Your task to perform on an android device: Go to notification settings Image 0: 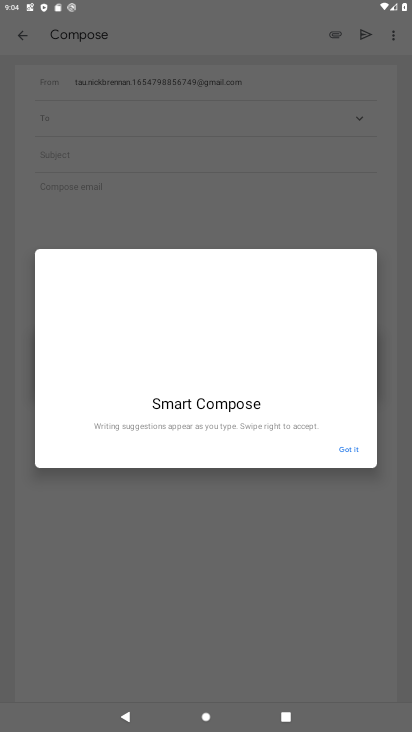
Step 0: press home button
Your task to perform on an android device: Go to notification settings Image 1: 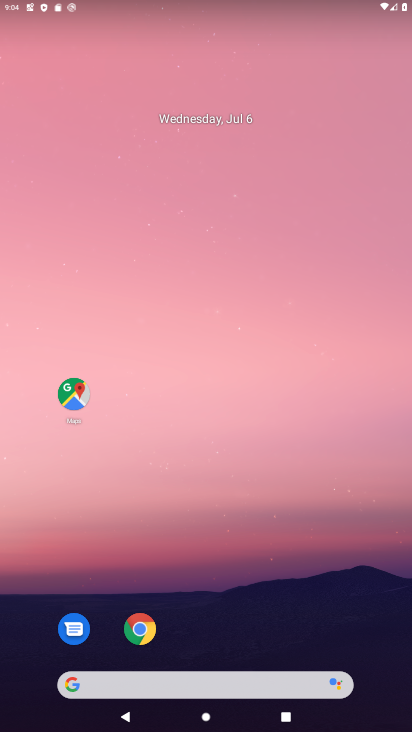
Step 1: drag from (248, 659) to (274, 5)
Your task to perform on an android device: Go to notification settings Image 2: 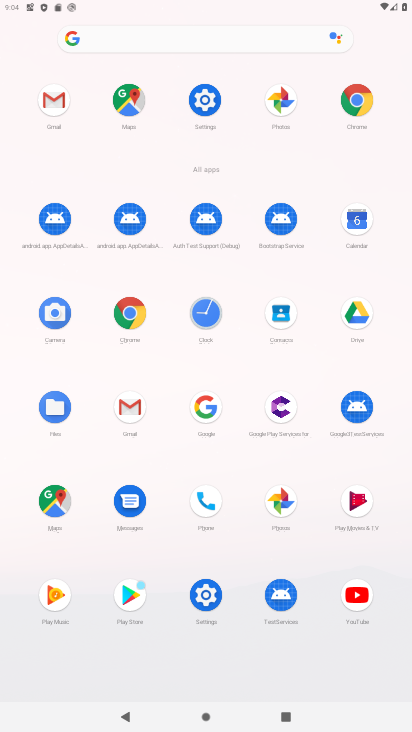
Step 2: click (201, 106)
Your task to perform on an android device: Go to notification settings Image 3: 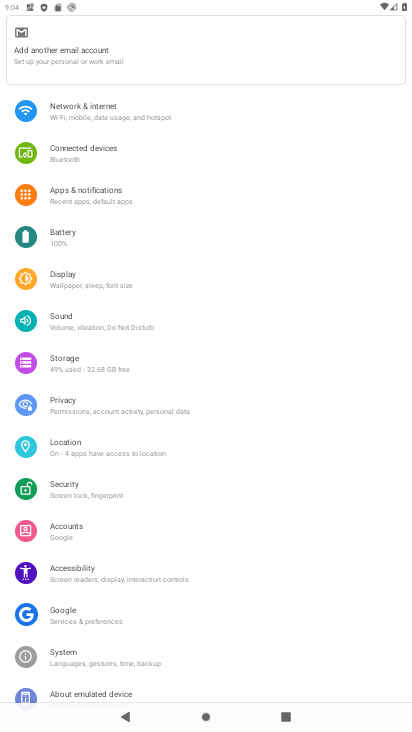
Step 3: click (126, 197)
Your task to perform on an android device: Go to notification settings Image 4: 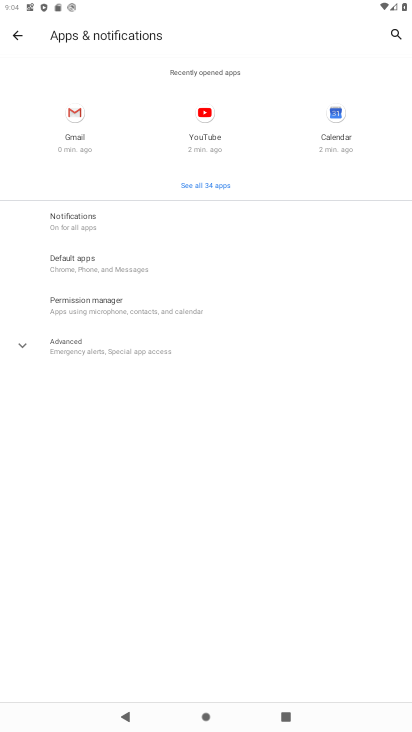
Step 4: click (125, 218)
Your task to perform on an android device: Go to notification settings Image 5: 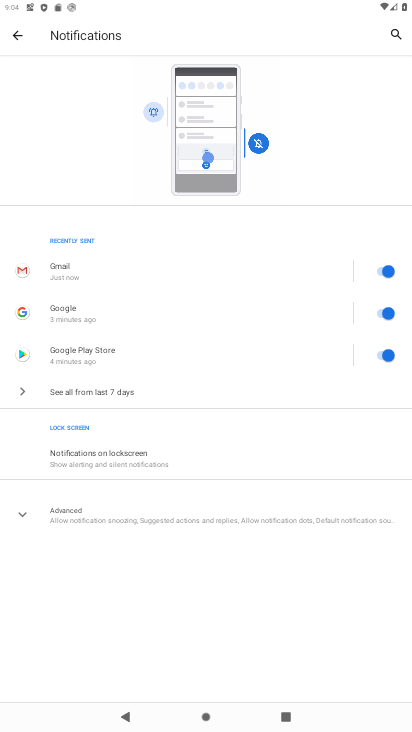
Step 5: task complete